Your task to perform on an android device: Toggle the flashlight Image 0: 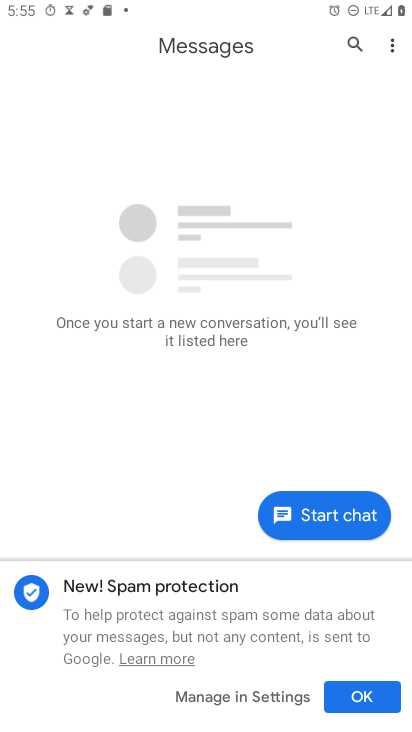
Step 0: press home button
Your task to perform on an android device: Toggle the flashlight Image 1: 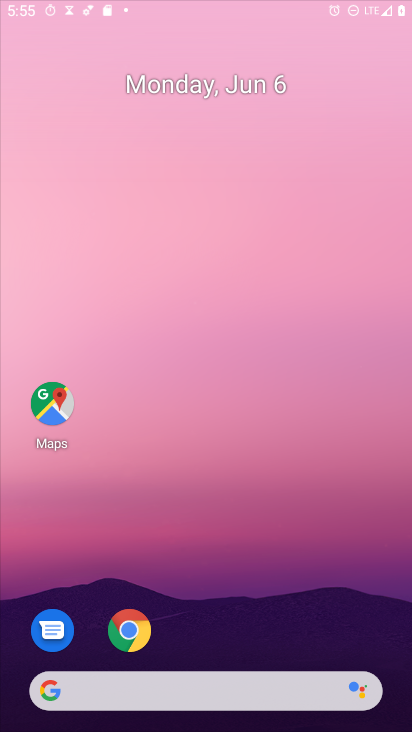
Step 1: task complete